Your task to perform on an android device: find snoozed emails in the gmail app Image 0: 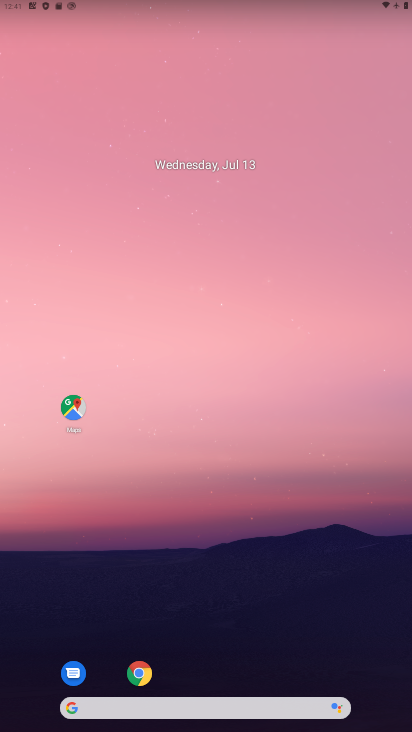
Step 0: drag from (271, 639) to (258, 117)
Your task to perform on an android device: find snoozed emails in the gmail app Image 1: 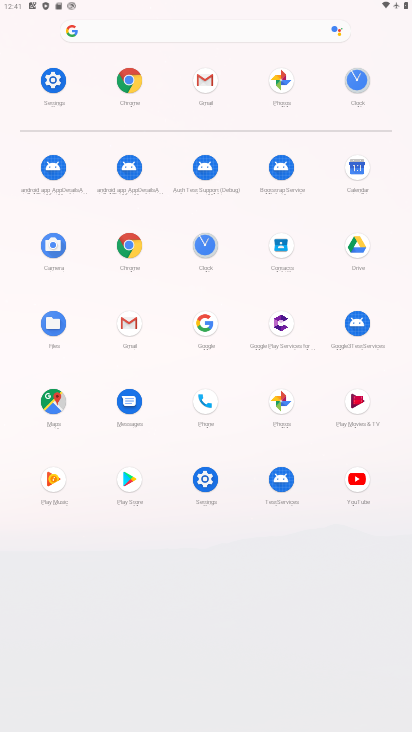
Step 1: click (213, 96)
Your task to perform on an android device: find snoozed emails in the gmail app Image 2: 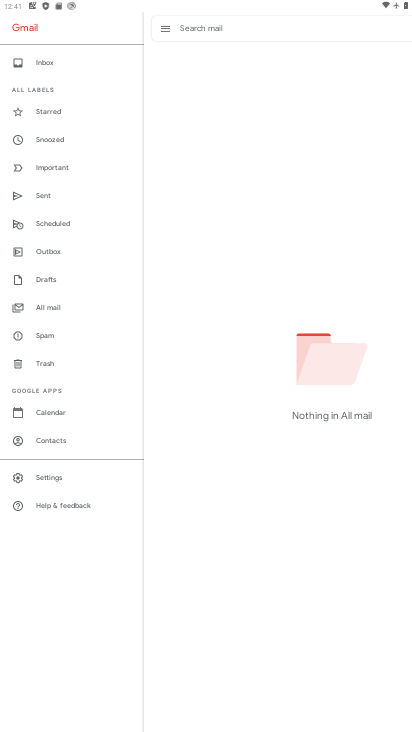
Step 2: click (69, 136)
Your task to perform on an android device: find snoozed emails in the gmail app Image 3: 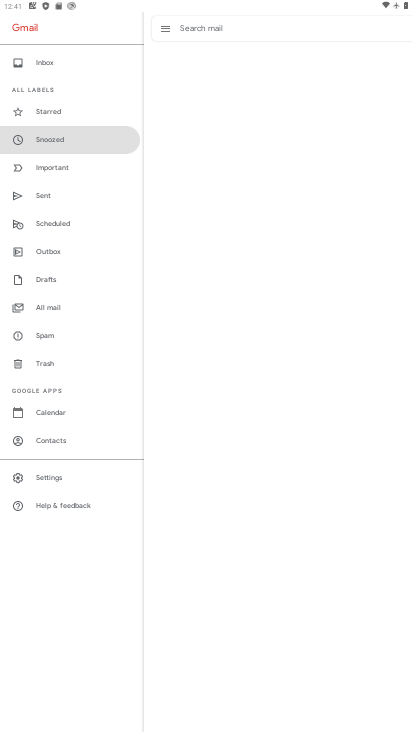
Step 3: task complete